Your task to perform on an android device: turn off data saver in the chrome app Image 0: 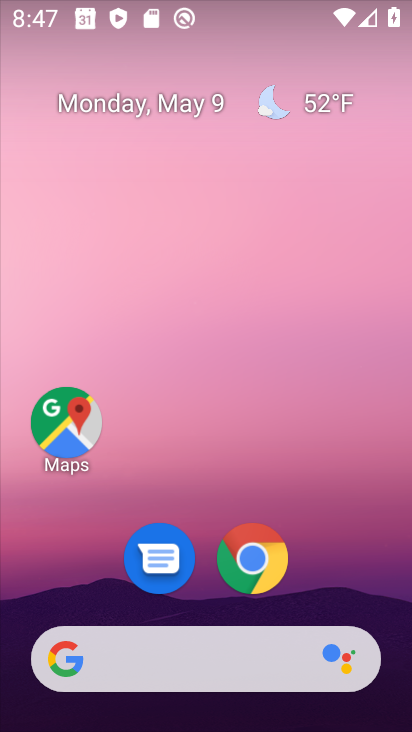
Step 0: click (275, 567)
Your task to perform on an android device: turn off data saver in the chrome app Image 1: 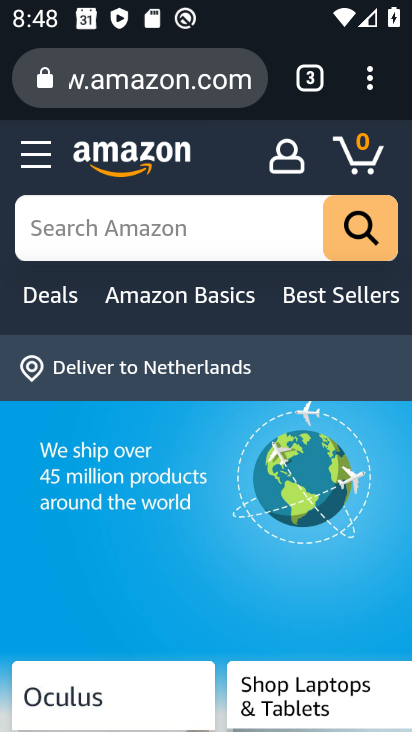
Step 1: click (370, 75)
Your task to perform on an android device: turn off data saver in the chrome app Image 2: 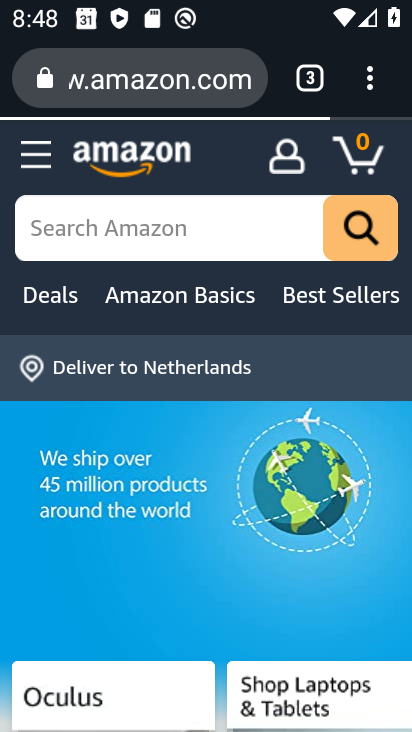
Step 2: drag from (371, 72) to (92, 601)
Your task to perform on an android device: turn off data saver in the chrome app Image 3: 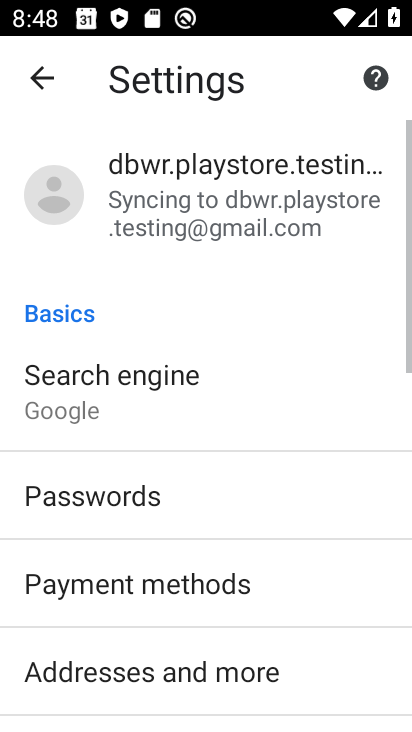
Step 3: drag from (154, 695) to (312, 139)
Your task to perform on an android device: turn off data saver in the chrome app Image 4: 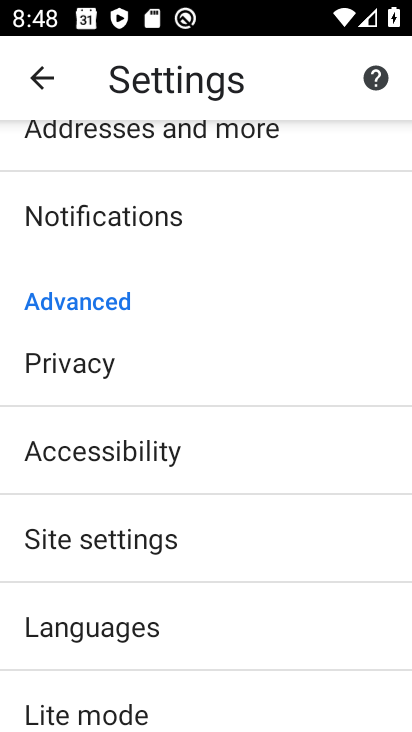
Step 4: click (123, 705)
Your task to perform on an android device: turn off data saver in the chrome app Image 5: 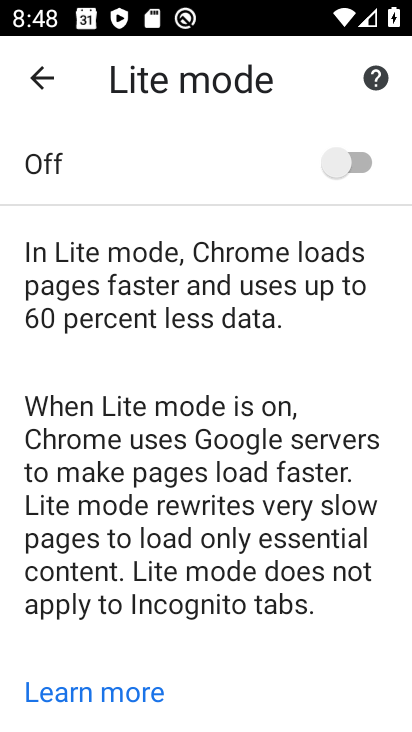
Step 5: task complete